Your task to perform on an android device: What's the weather going to be this weekend? Image 0: 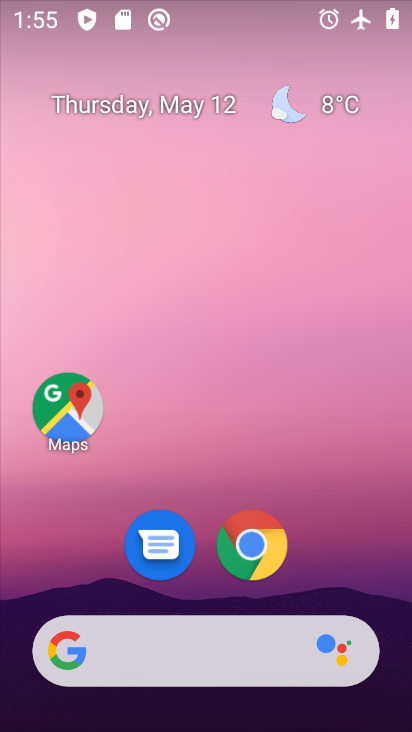
Step 0: click (318, 103)
Your task to perform on an android device: What's the weather going to be this weekend? Image 1: 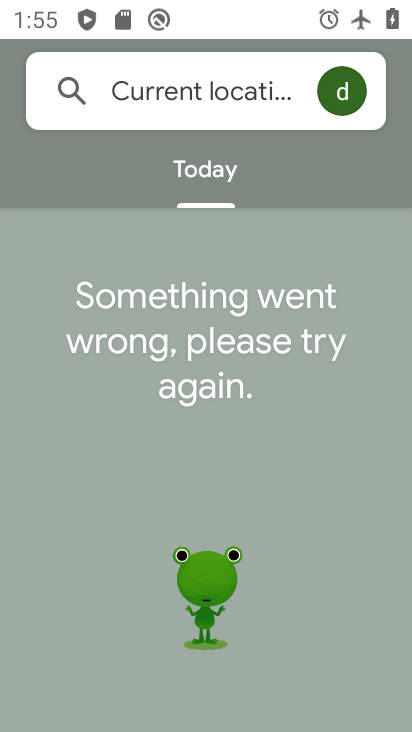
Step 1: task complete